Your task to perform on an android device: turn on priority inbox in the gmail app Image 0: 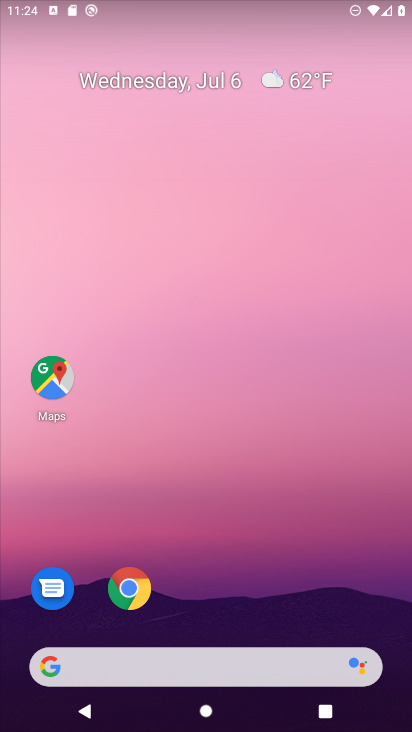
Step 0: drag from (365, 605) to (331, 174)
Your task to perform on an android device: turn on priority inbox in the gmail app Image 1: 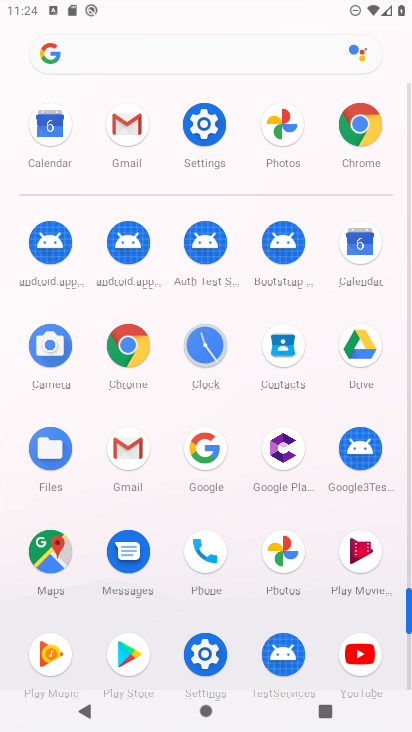
Step 1: click (126, 449)
Your task to perform on an android device: turn on priority inbox in the gmail app Image 2: 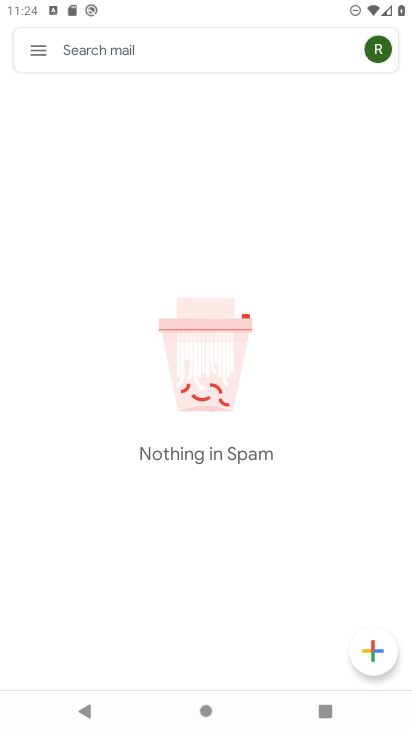
Step 2: click (35, 48)
Your task to perform on an android device: turn on priority inbox in the gmail app Image 3: 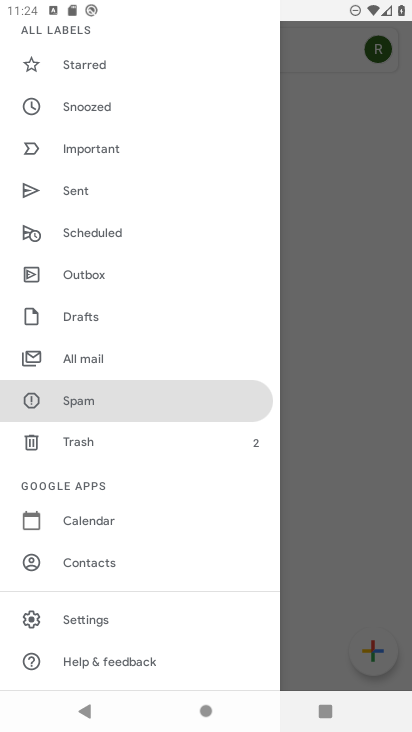
Step 3: click (88, 614)
Your task to perform on an android device: turn on priority inbox in the gmail app Image 4: 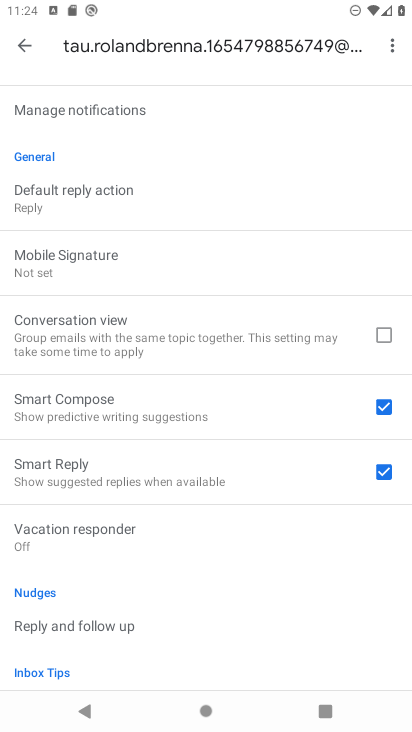
Step 4: drag from (248, 167) to (271, 459)
Your task to perform on an android device: turn on priority inbox in the gmail app Image 5: 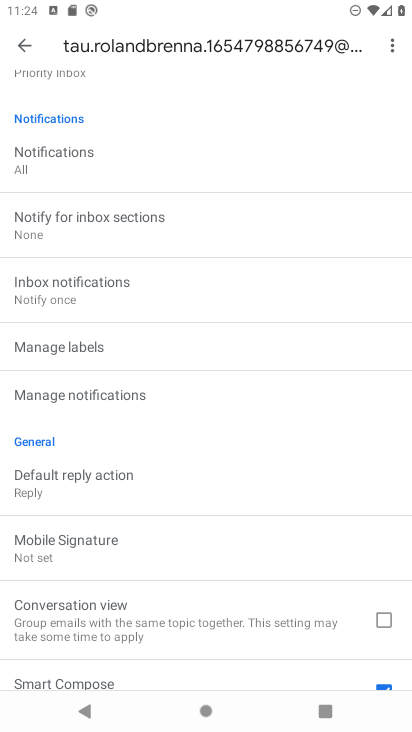
Step 5: drag from (271, 184) to (263, 474)
Your task to perform on an android device: turn on priority inbox in the gmail app Image 6: 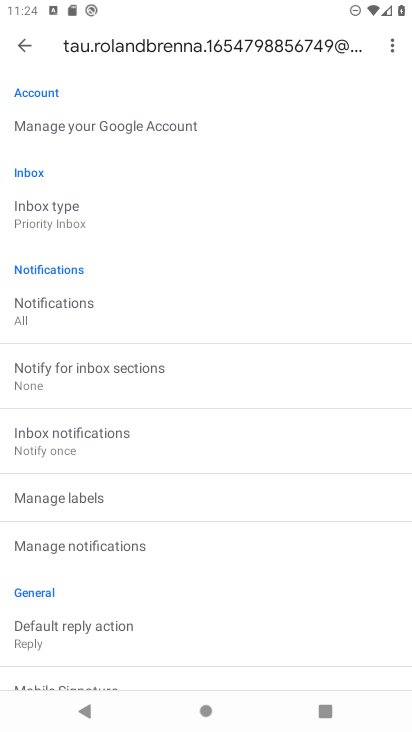
Step 6: click (40, 218)
Your task to perform on an android device: turn on priority inbox in the gmail app Image 7: 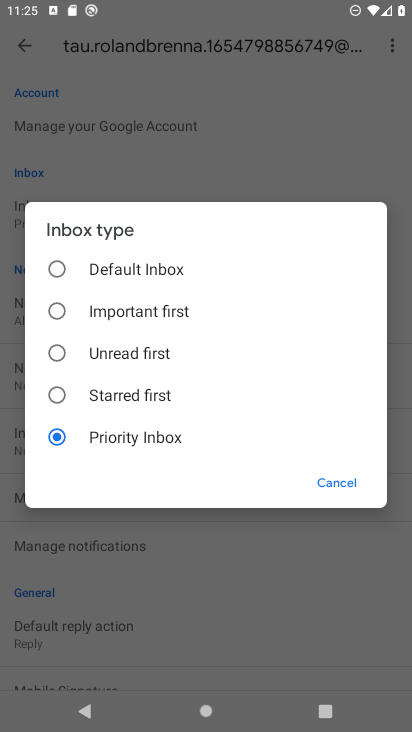
Step 7: task complete